Your task to perform on an android device: turn off airplane mode Image 0: 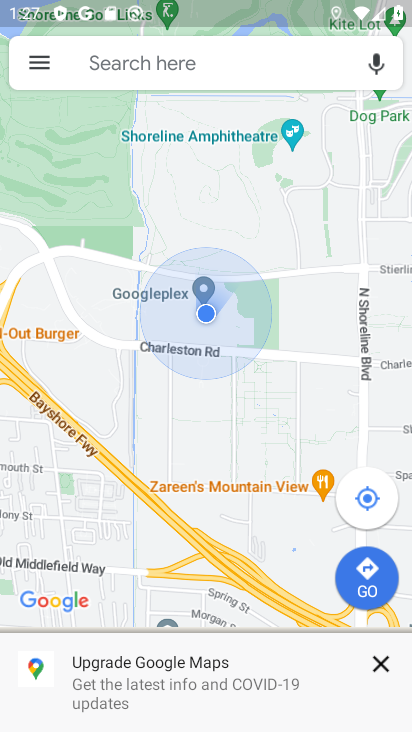
Step 0: press home button
Your task to perform on an android device: turn off airplane mode Image 1: 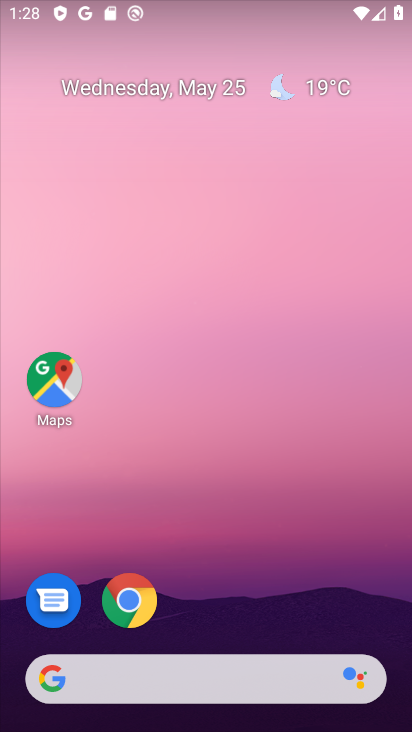
Step 1: drag from (182, 671) to (237, 137)
Your task to perform on an android device: turn off airplane mode Image 2: 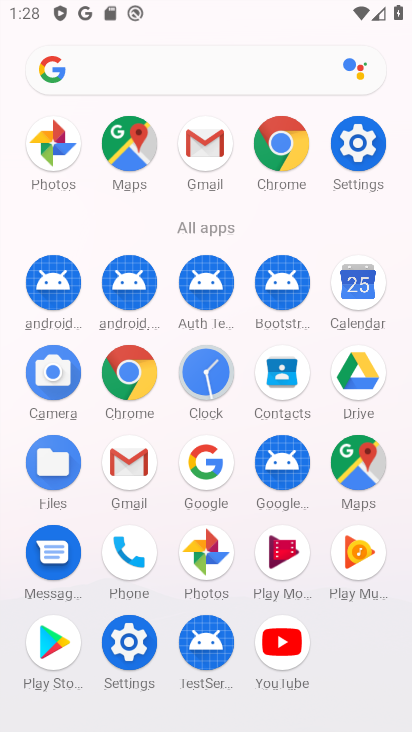
Step 2: click (123, 651)
Your task to perform on an android device: turn off airplane mode Image 3: 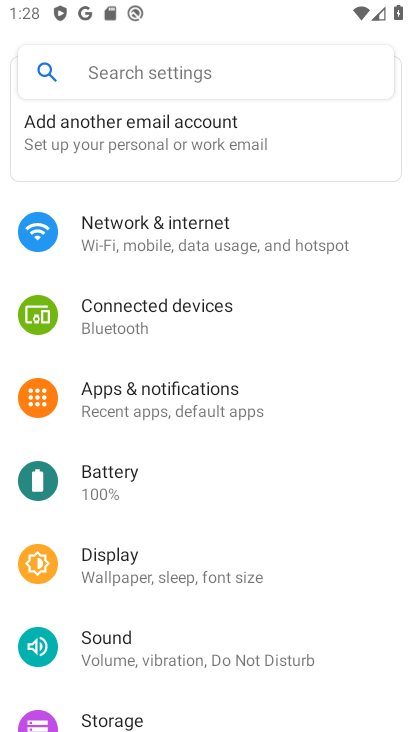
Step 3: click (211, 245)
Your task to perform on an android device: turn off airplane mode Image 4: 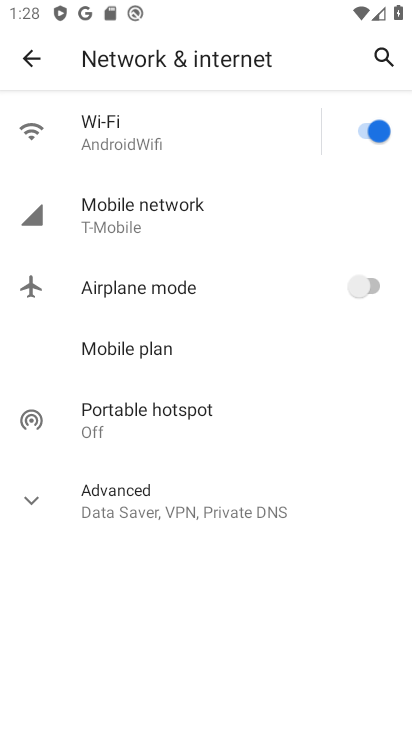
Step 4: task complete